Your task to perform on an android device: toggle priority inbox in the gmail app Image 0: 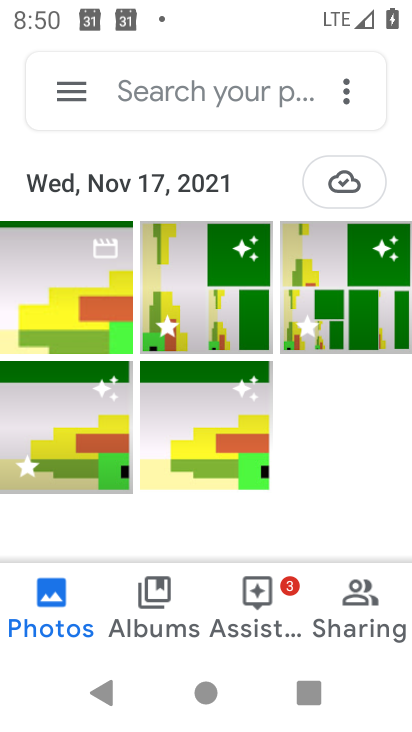
Step 0: press home button
Your task to perform on an android device: toggle priority inbox in the gmail app Image 1: 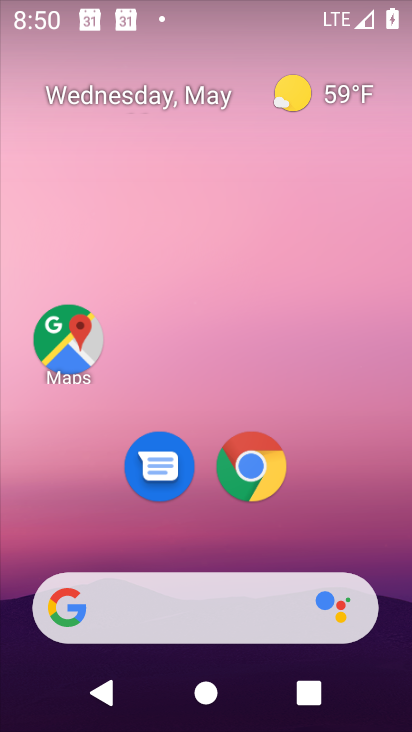
Step 1: click (251, 458)
Your task to perform on an android device: toggle priority inbox in the gmail app Image 2: 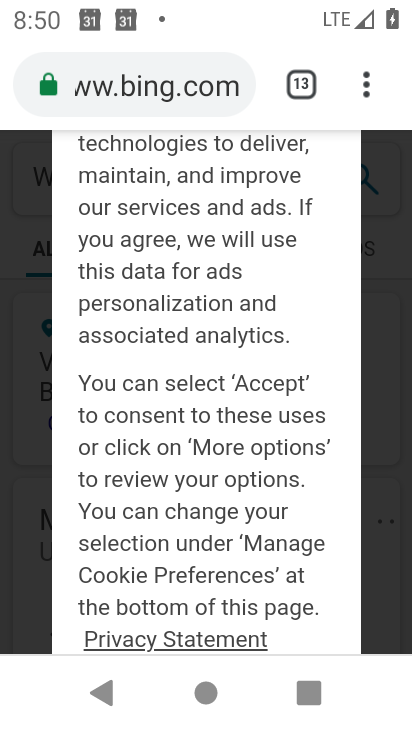
Step 2: press home button
Your task to perform on an android device: toggle priority inbox in the gmail app Image 3: 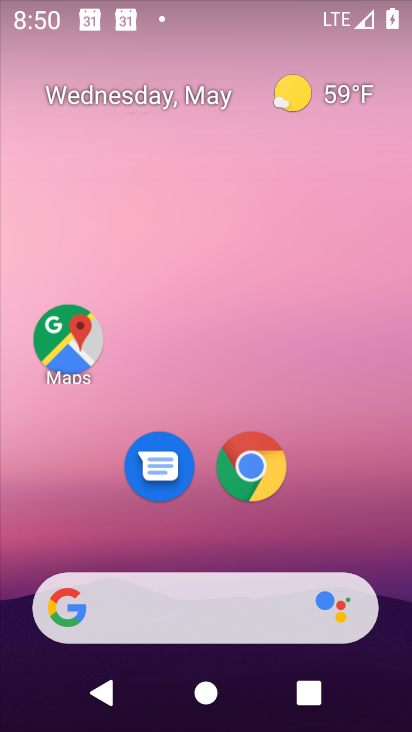
Step 3: drag from (341, 511) to (368, 134)
Your task to perform on an android device: toggle priority inbox in the gmail app Image 4: 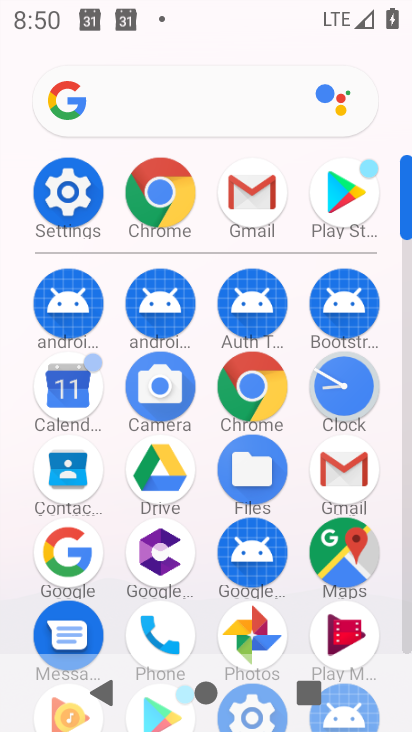
Step 4: click (262, 190)
Your task to perform on an android device: toggle priority inbox in the gmail app Image 5: 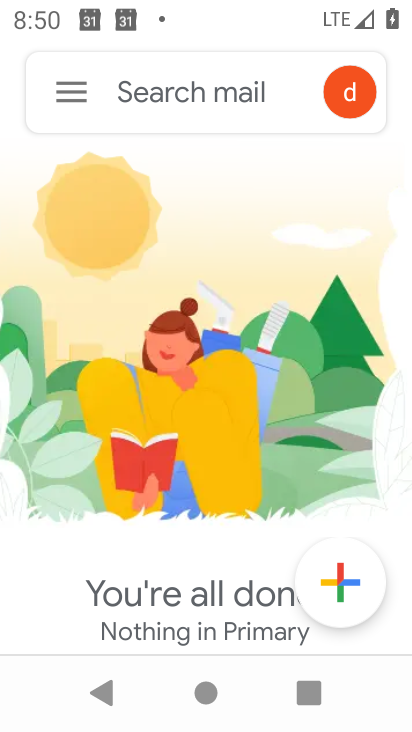
Step 5: click (75, 89)
Your task to perform on an android device: toggle priority inbox in the gmail app Image 6: 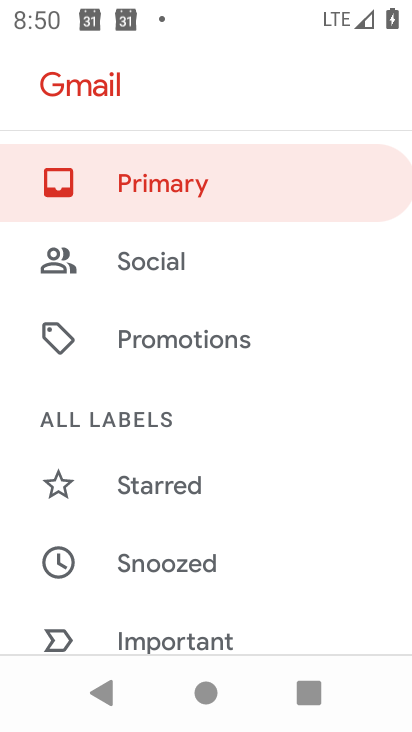
Step 6: drag from (217, 579) to (258, 137)
Your task to perform on an android device: toggle priority inbox in the gmail app Image 7: 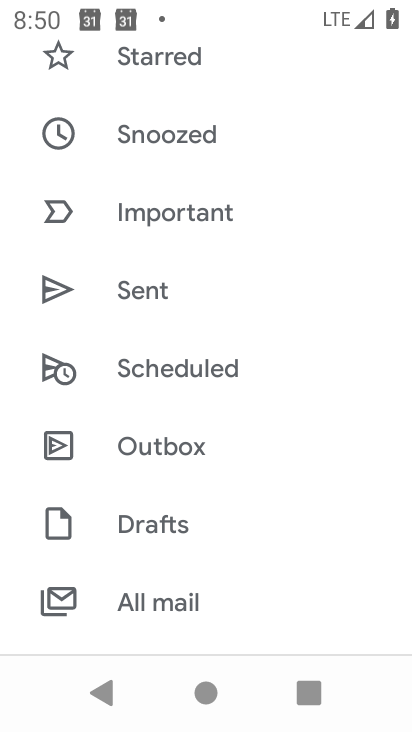
Step 7: drag from (193, 584) to (286, 106)
Your task to perform on an android device: toggle priority inbox in the gmail app Image 8: 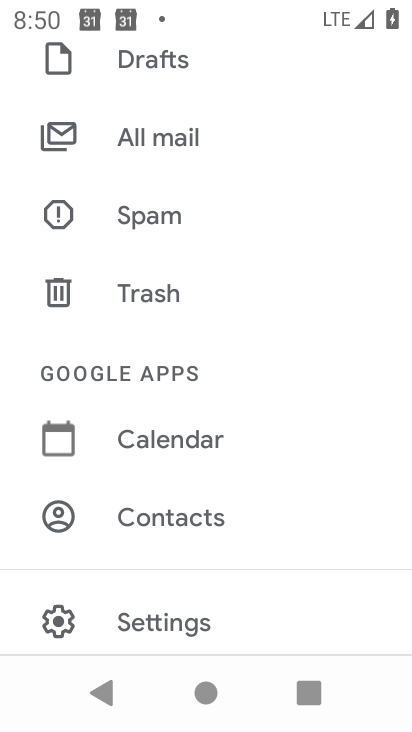
Step 8: click (154, 624)
Your task to perform on an android device: toggle priority inbox in the gmail app Image 9: 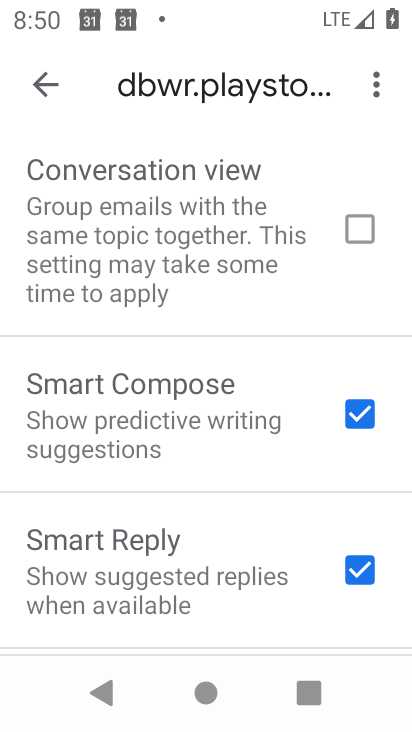
Step 9: drag from (187, 194) to (187, 648)
Your task to perform on an android device: toggle priority inbox in the gmail app Image 10: 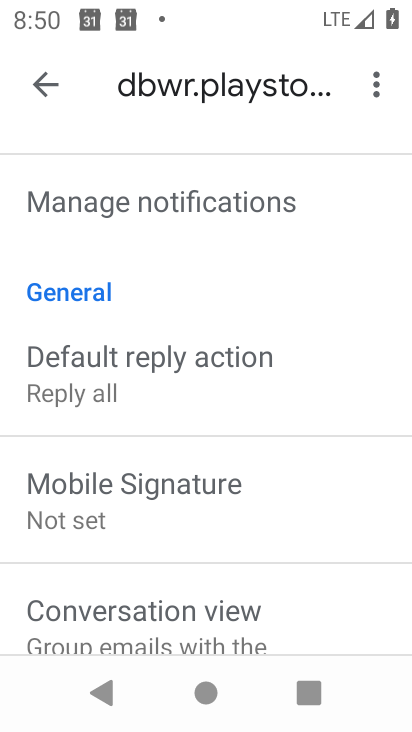
Step 10: drag from (204, 225) to (196, 667)
Your task to perform on an android device: toggle priority inbox in the gmail app Image 11: 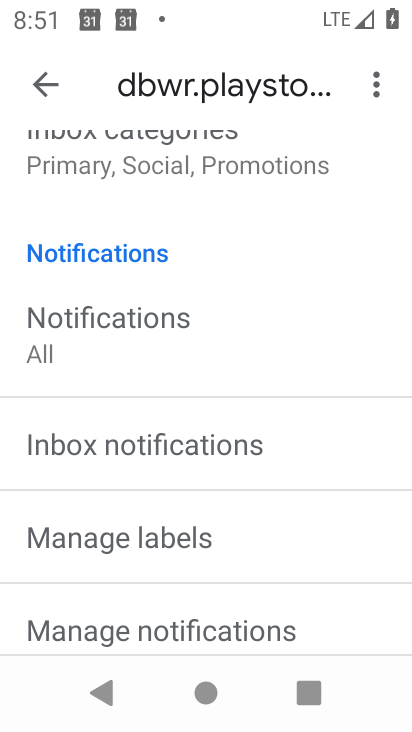
Step 11: drag from (174, 252) to (181, 506)
Your task to perform on an android device: toggle priority inbox in the gmail app Image 12: 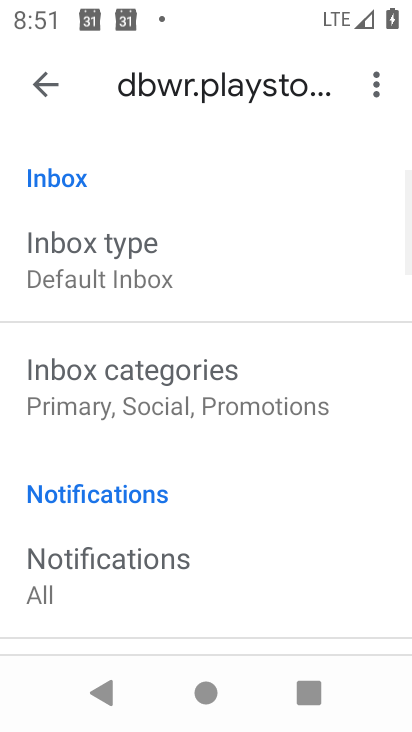
Step 12: click (137, 264)
Your task to perform on an android device: toggle priority inbox in the gmail app Image 13: 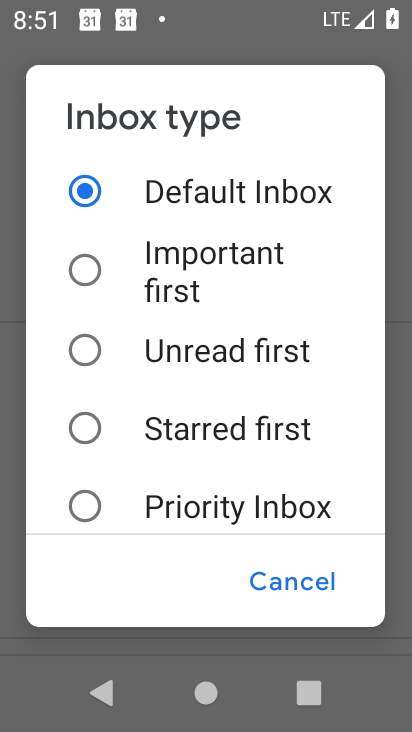
Step 13: click (83, 509)
Your task to perform on an android device: toggle priority inbox in the gmail app Image 14: 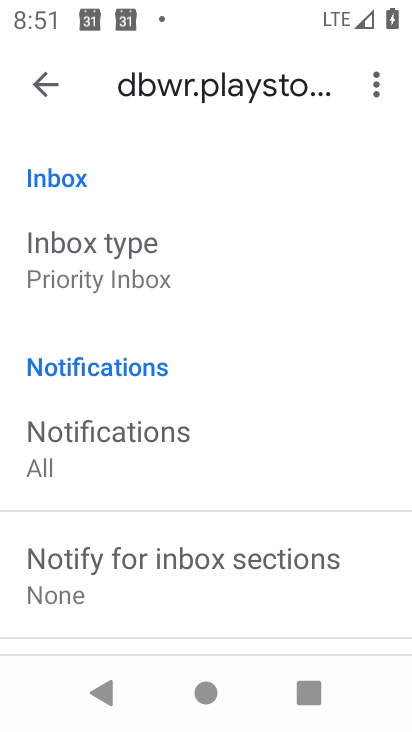
Step 14: task complete